Your task to perform on an android device: Clear all items from cart on bestbuy.com. Search for "alienware aurora" on bestbuy.com, select the first entry, and add it to the cart. Image 0: 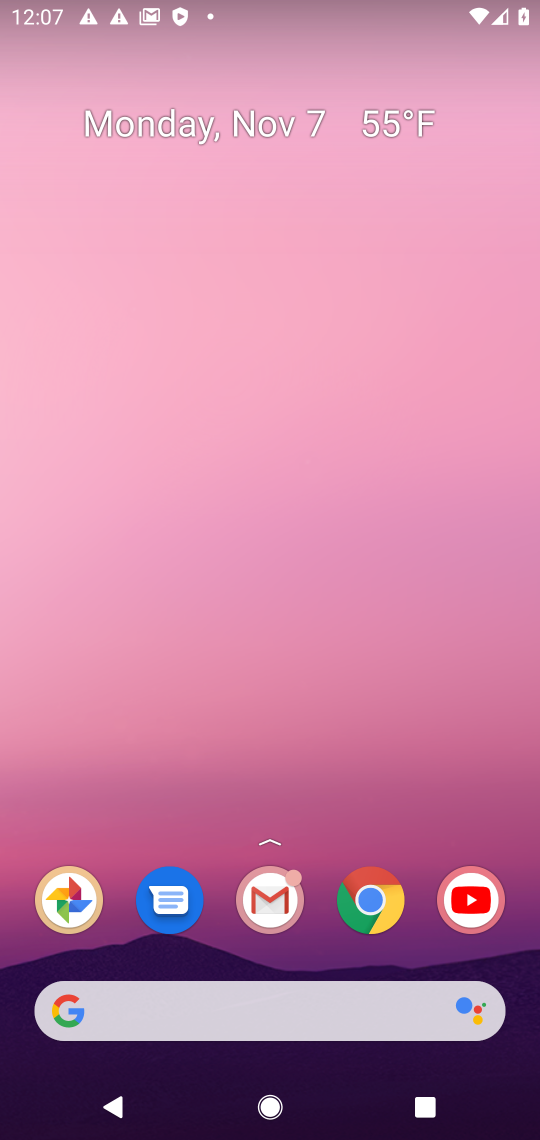
Step 0: click (141, 1029)
Your task to perform on an android device: Clear all items from cart on bestbuy.com. Search for "alienware aurora" on bestbuy.com, select the first entry, and add it to the cart. Image 1: 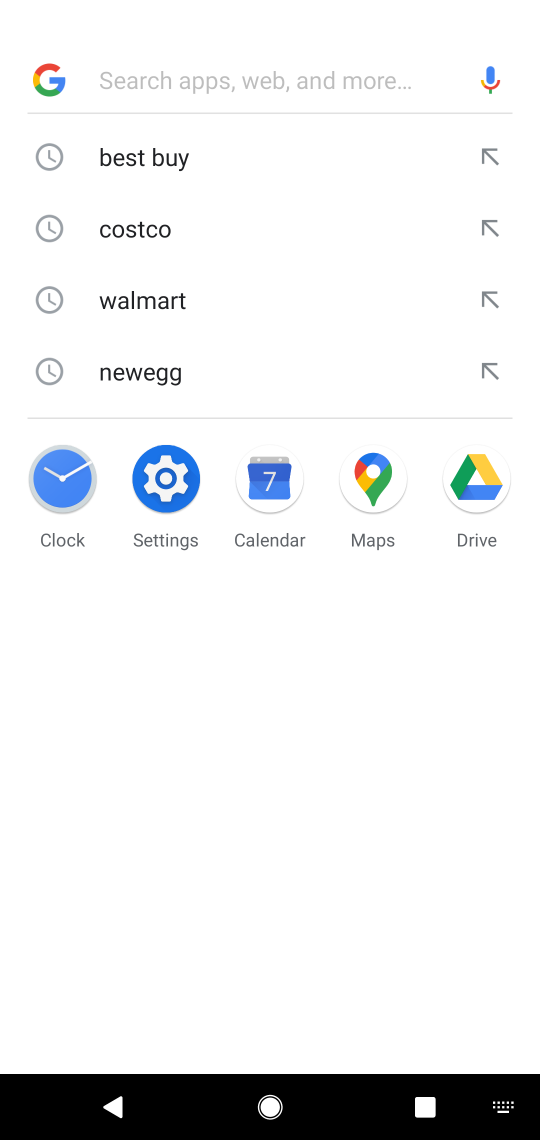
Step 1: click (115, 152)
Your task to perform on an android device: Clear all items from cart on bestbuy.com. Search for "alienware aurora" on bestbuy.com, select the first entry, and add it to the cart. Image 2: 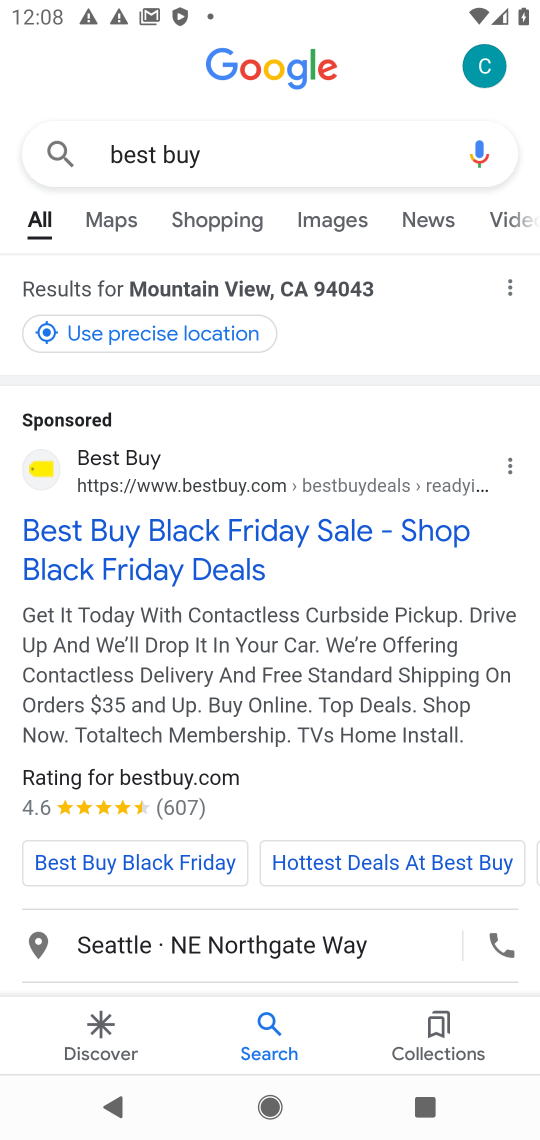
Step 2: click (328, 556)
Your task to perform on an android device: Clear all items from cart on bestbuy.com. Search for "alienware aurora" on bestbuy.com, select the first entry, and add it to the cart. Image 3: 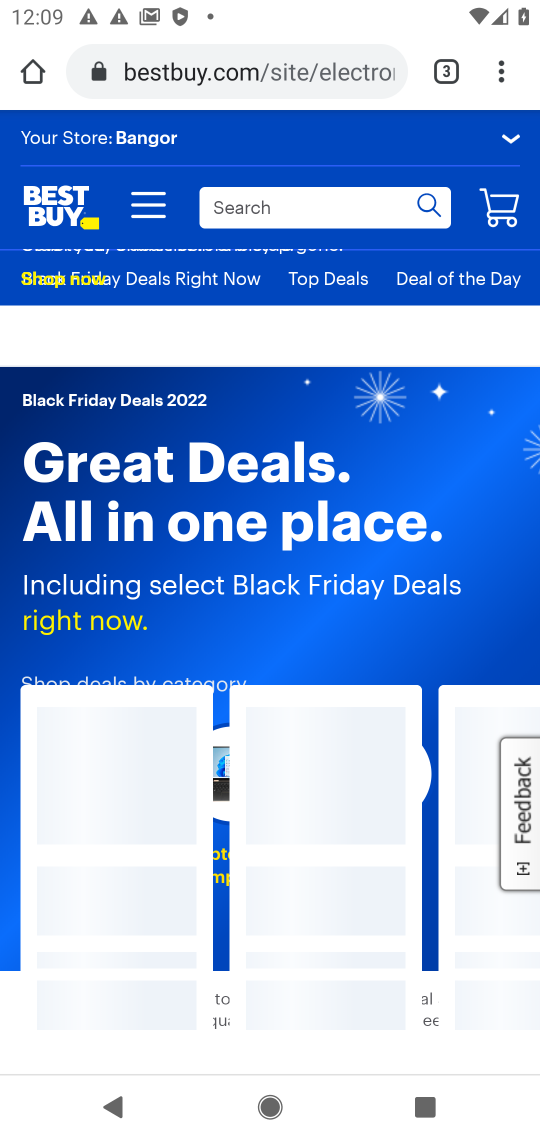
Step 3: task complete